Your task to perform on an android device: Open Google Chrome and open the bookmarks view Image 0: 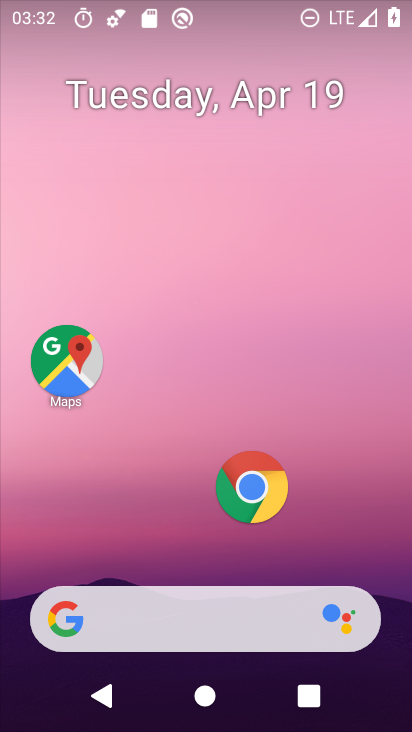
Step 0: click (252, 498)
Your task to perform on an android device: Open Google Chrome and open the bookmarks view Image 1: 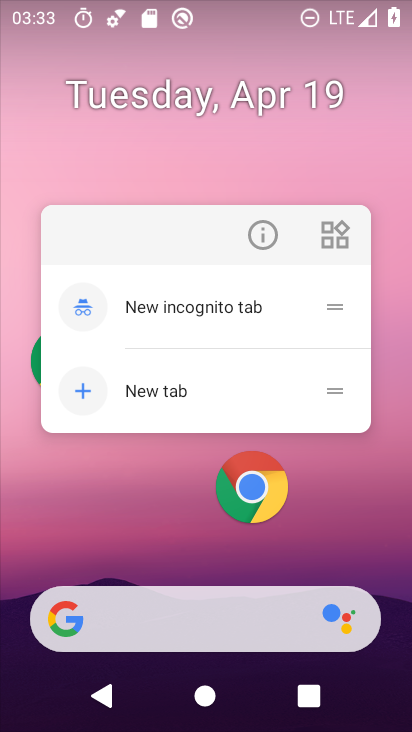
Step 1: click (256, 491)
Your task to perform on an android device: Open Google Chrome and open the bookmarks view Image 2: 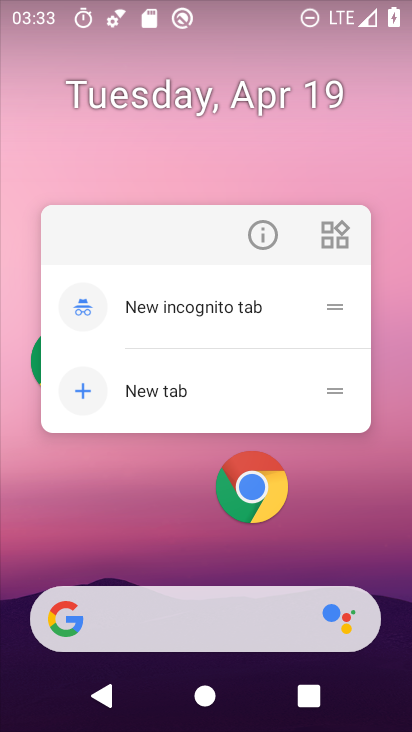
Step 2: click (256, 491)
Your task to perform on an android device: Open Google Chrome and open the bookmarks view Image 3: 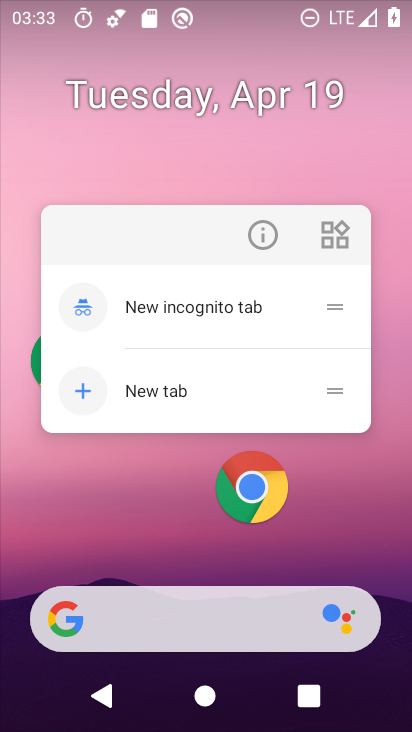
Step 3: click (257, 491)
Your task to perform on an android device: Open Google Chrome and open the bookmarks view Image 4: 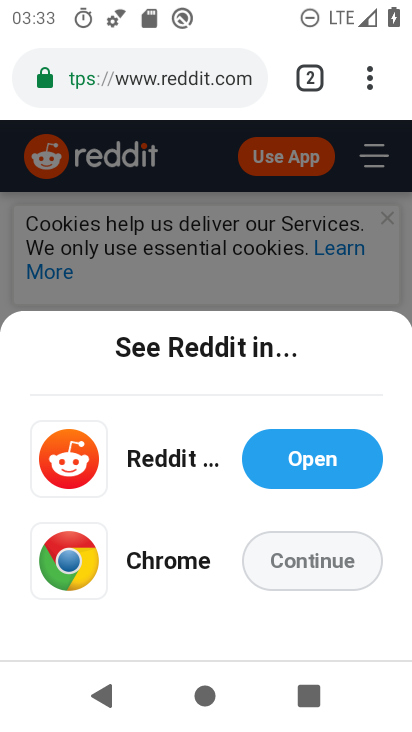
Step 4: task complete